Your task to perform on an android device: check data usage Image 0: 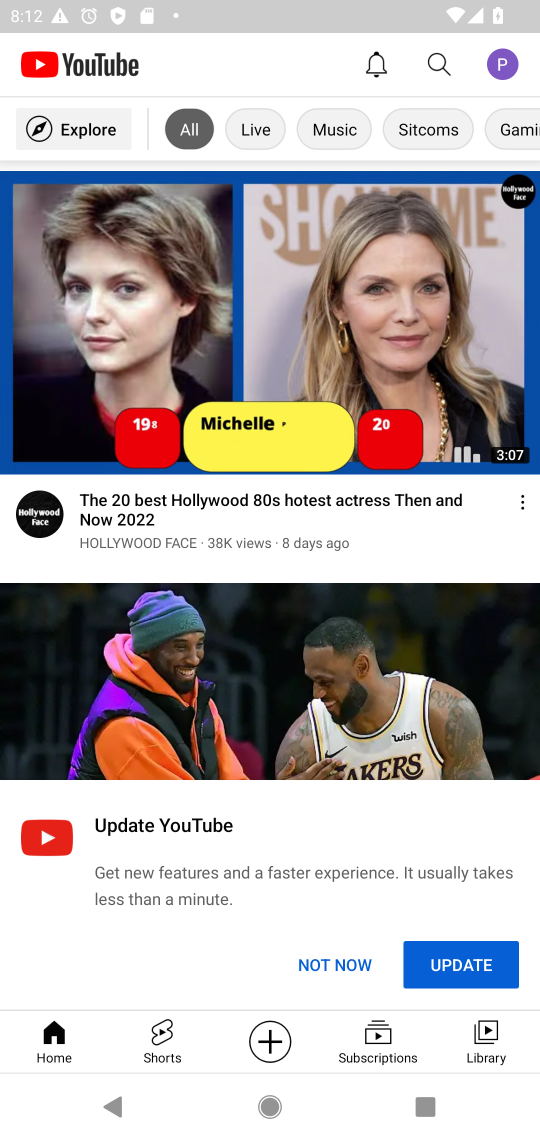
Step 0: press home button
Your task to perform on an android device: check data usage Image 1: 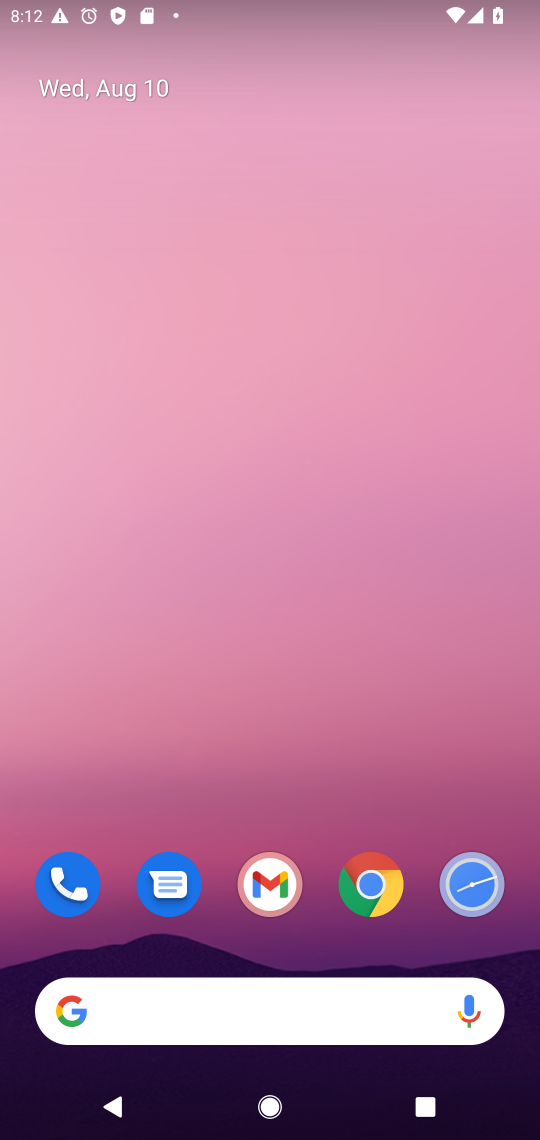
Step 1: drag from (27, 1082) to (275, 375)
Your task to perform on an android device: check data usage Image 2: 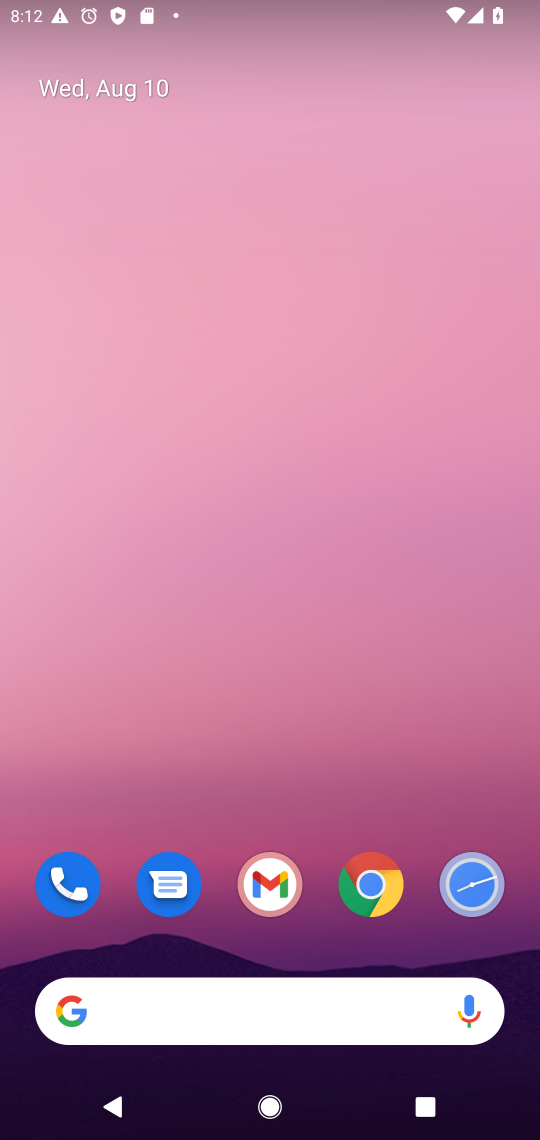
Step 2: drag from (27, 1082) to (284, 372)
Your task to perform on an android device: check data usage Image 3: 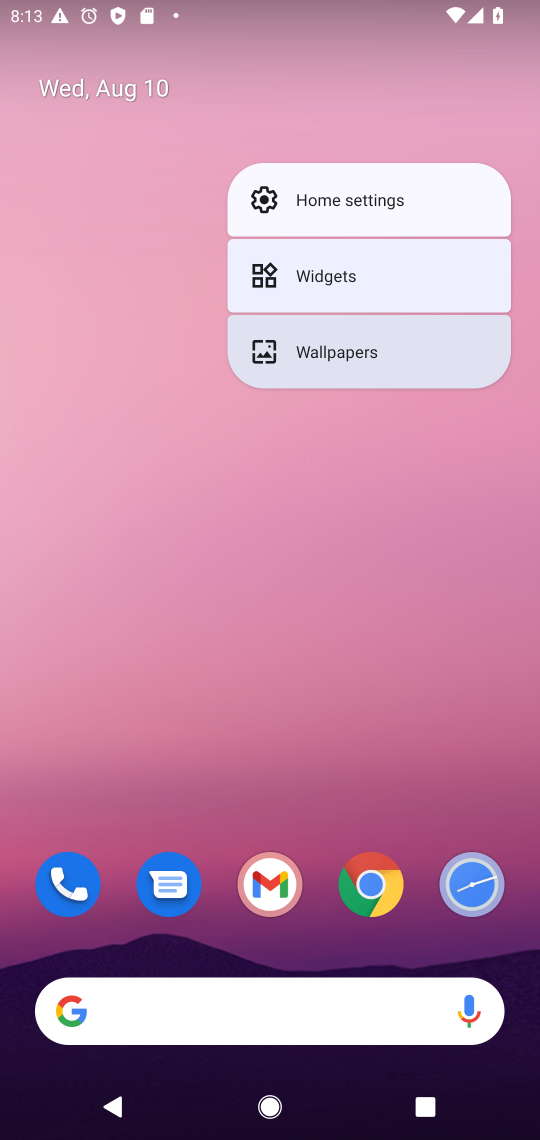
Step 3: drag from (48, 1089) to (88, 404)
Your task to perform on an android device: check data usage Image 4: 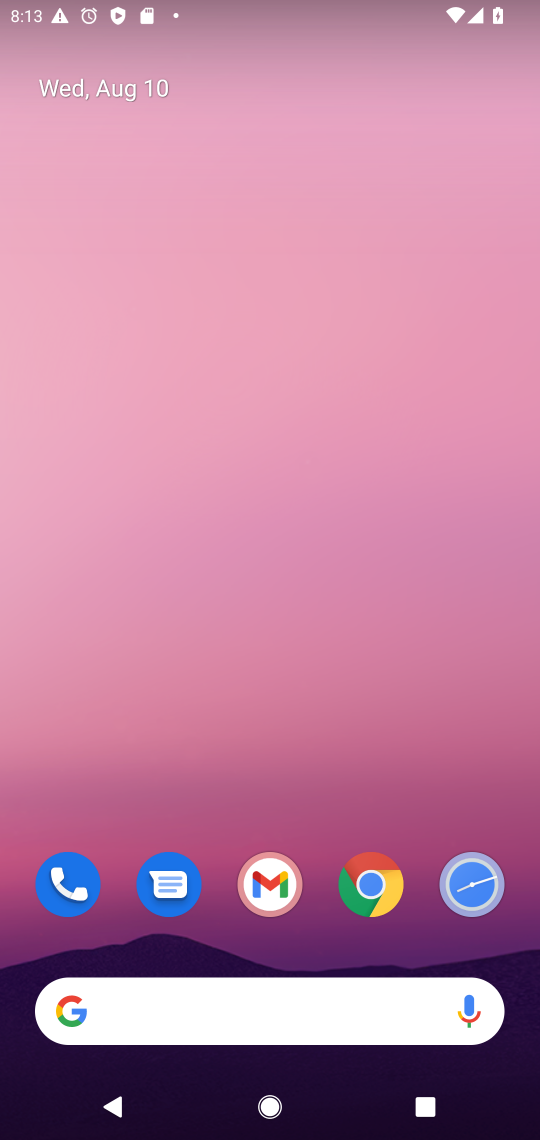
Step 4: drag from (119, 1068) to (436, 141)
Your task to perform on an android device: check data usage Image 5: 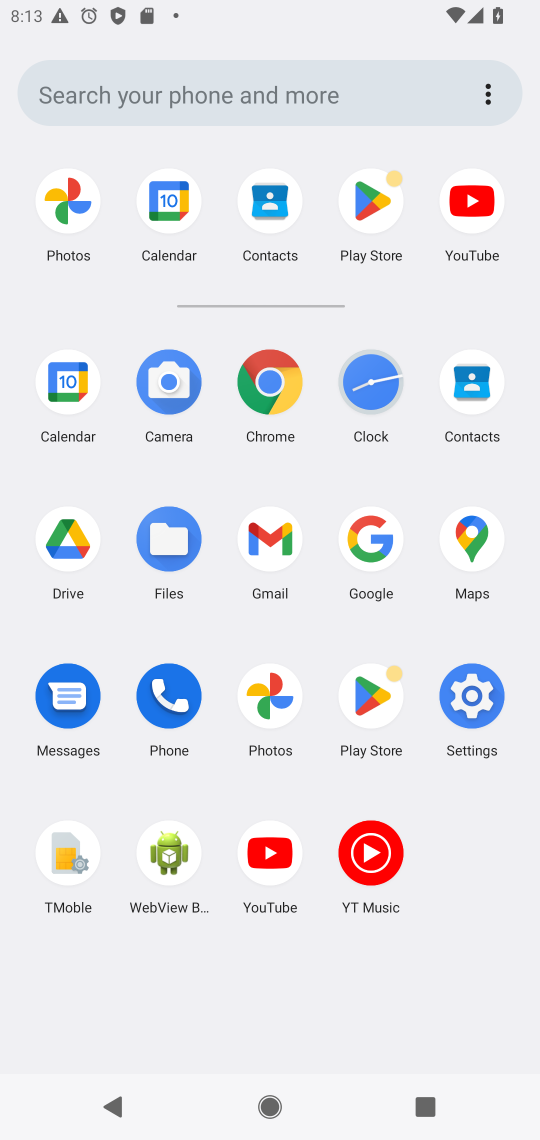
Step 5: click (475, 681)
Your task to perform on an android device: check data usage Image 6: 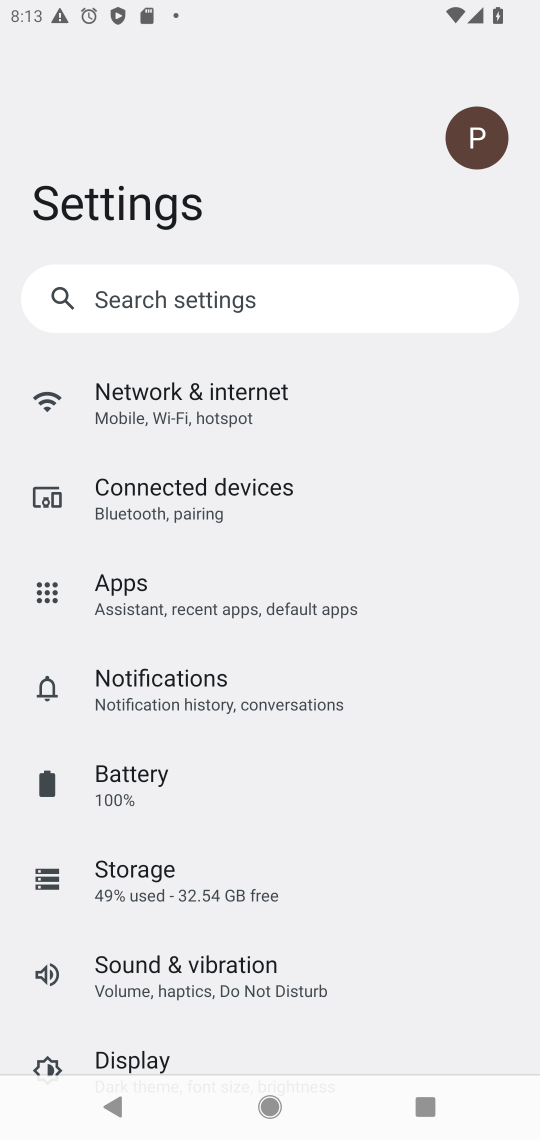
Step 6: click (192, 402)
Your task to perform on an android device: check data usage Image 7: 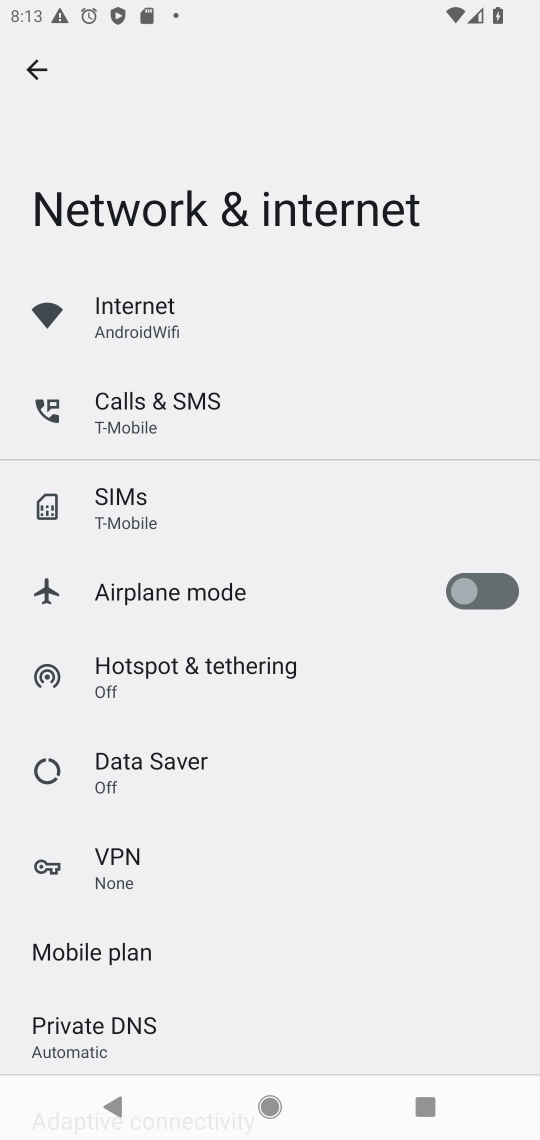
Step 7: click (134, 301)
Your task to perform on an android device: check data usage Image 8: 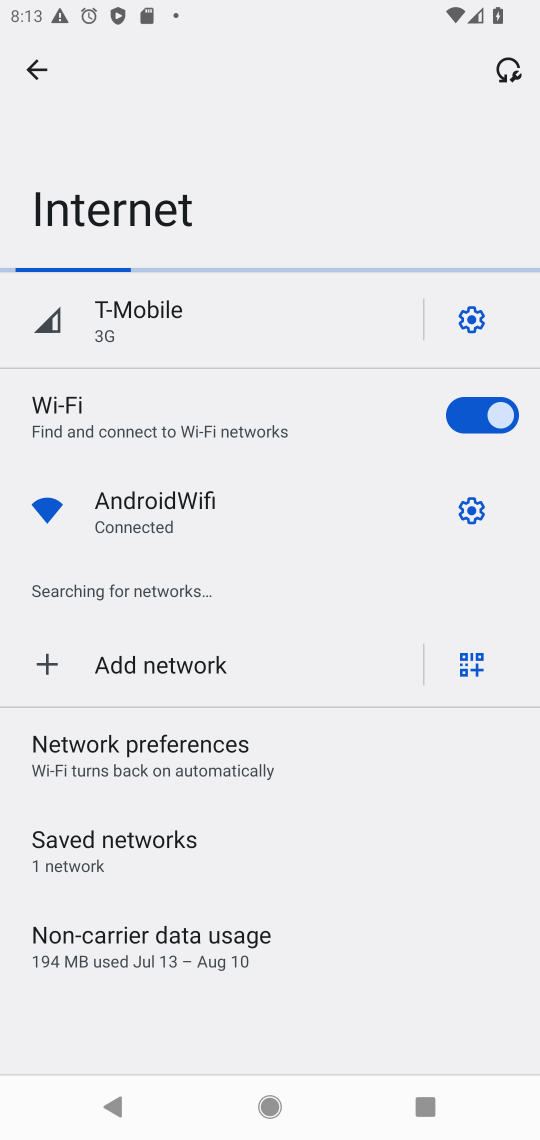
Step 8: click (216, 947)
Your task to perform on an android device: check data usage Image 9: 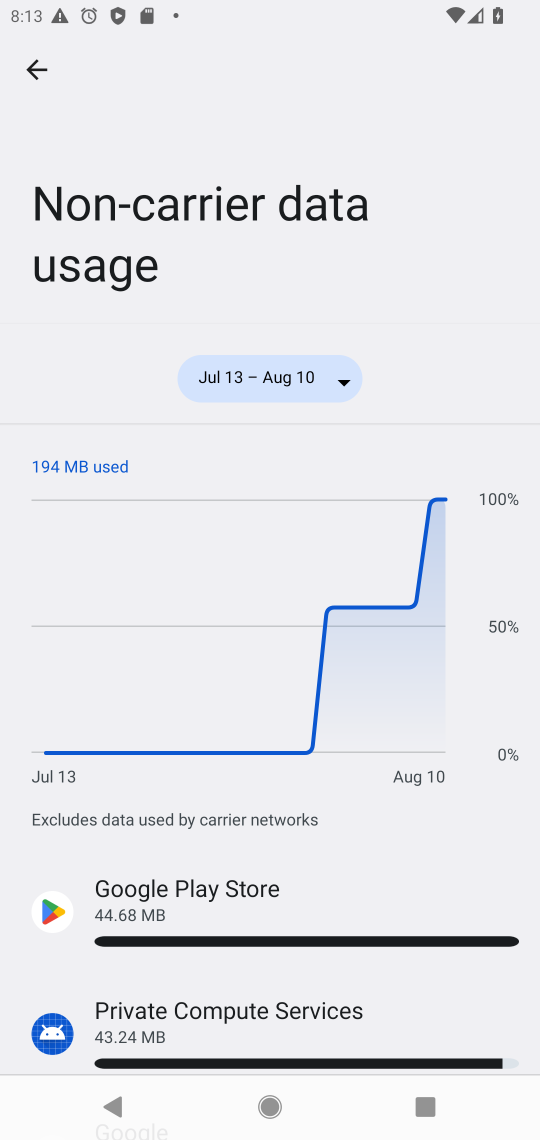
Step 9: task complete